Your task to perform on an android device: check android version Image 0: 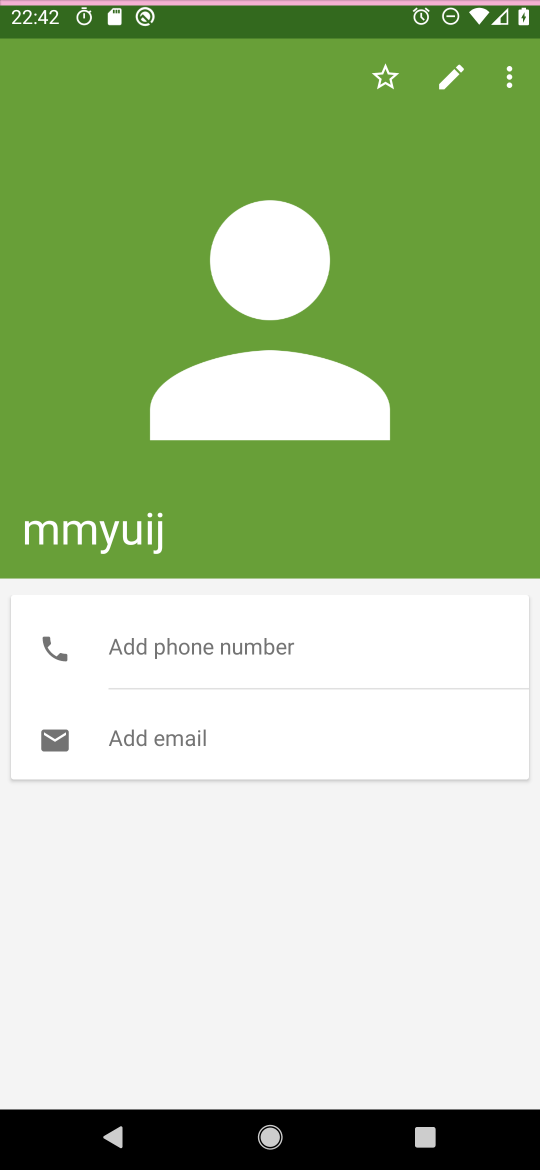
Step 0: drag from (249, 681) to (305, 52)
Your task to perform on an android device: check android version Image 1: 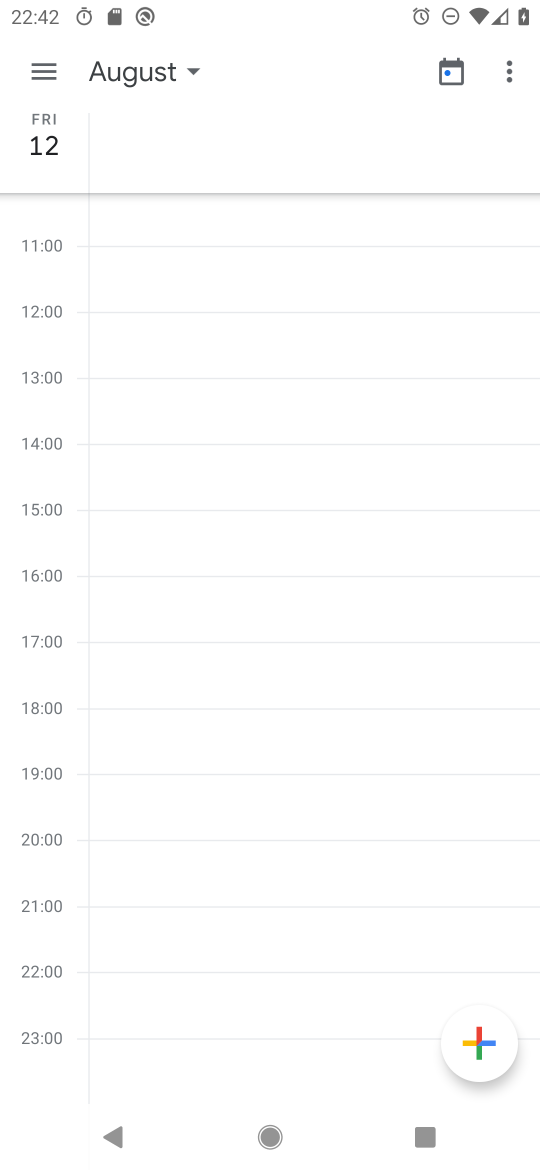
Step 1: press home button
Your task to perform on an android device: check android version Image 2: 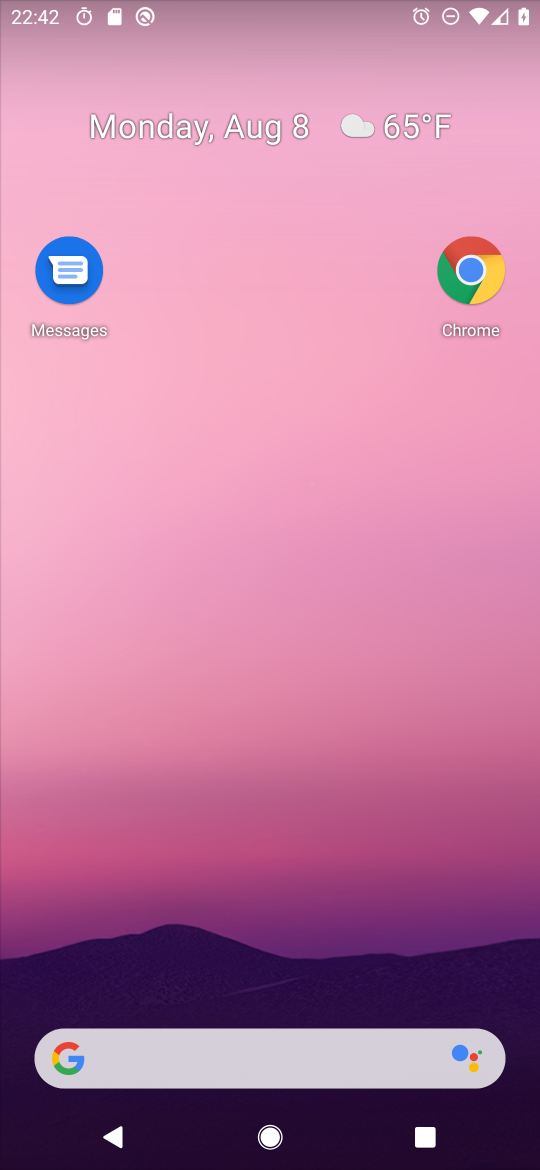
Step 2: drag from (355, 895) to (360, 238)
Your task to perform on an android device: check android version Image 3: 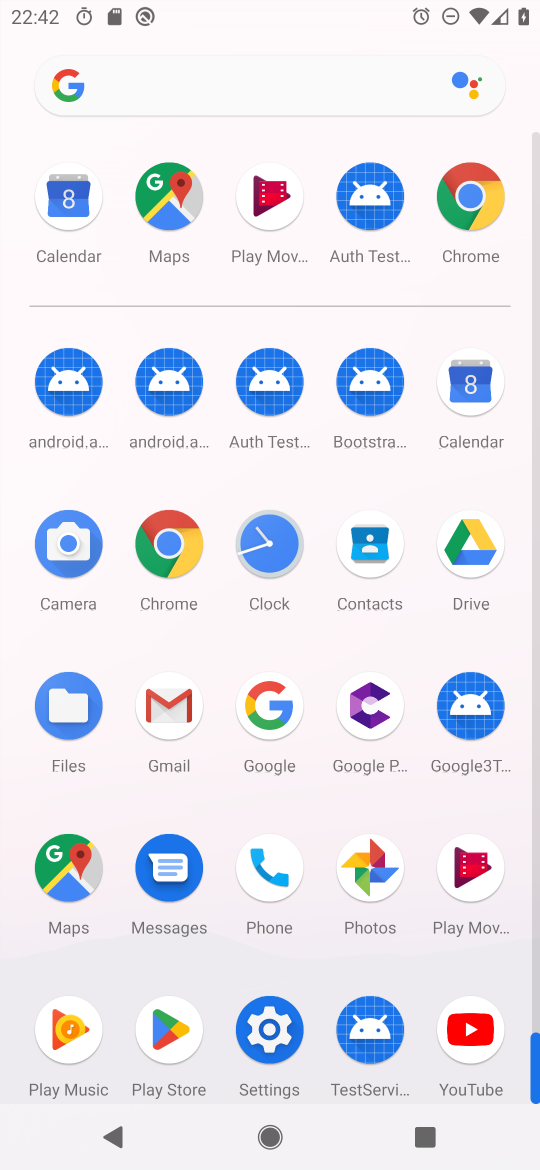
Step 3: click (259, 1030)
Your task to perform on an android device: check android version Image 4: 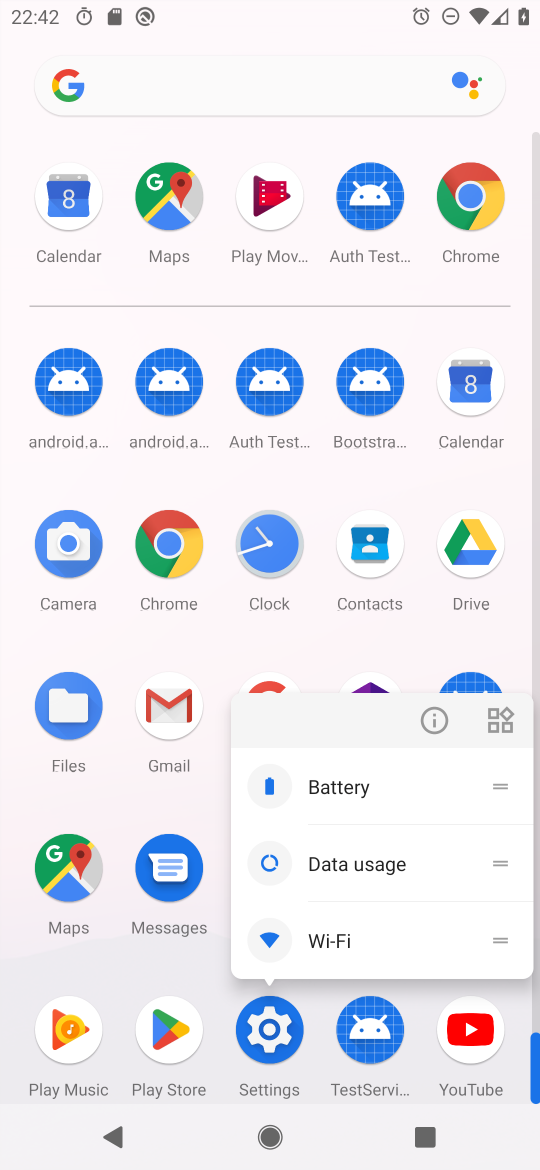
Step 4: click (432, 714)
Your task to perform on an android device: check android version Image 5: 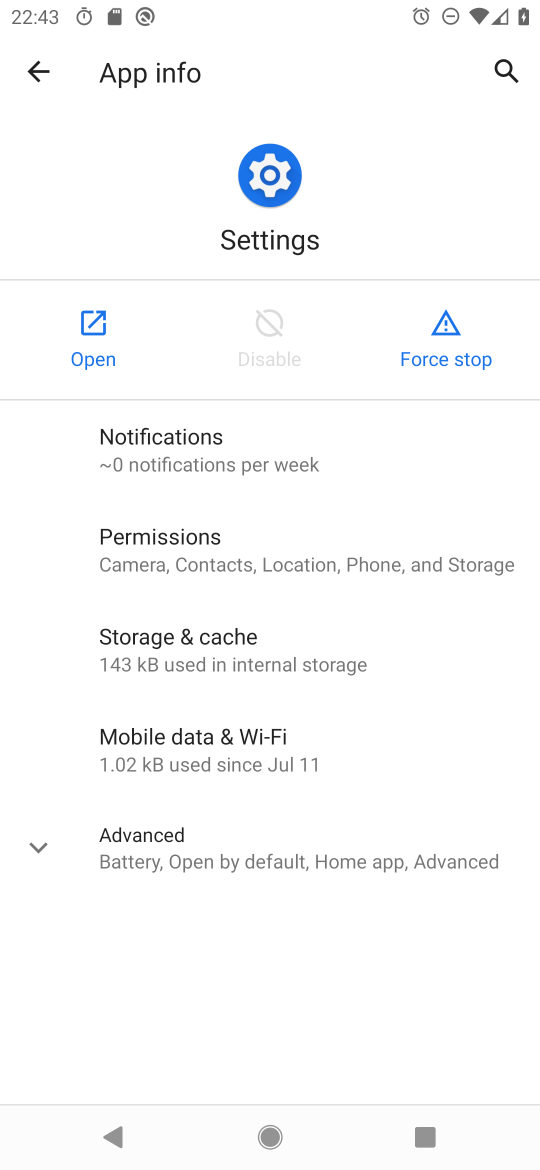
Step 5: click (105, 351)
Your task to perform on an android device: check android version Image 6: 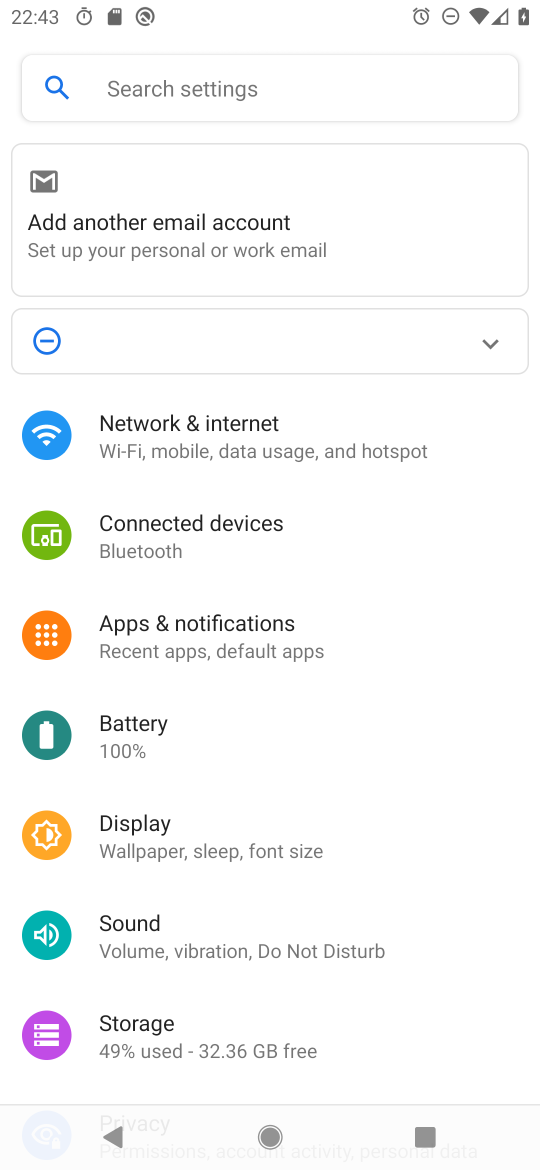
Step 6: drag from (299, 989) to (335, 242)
Your task to perform on an android device: check android version Image 7: 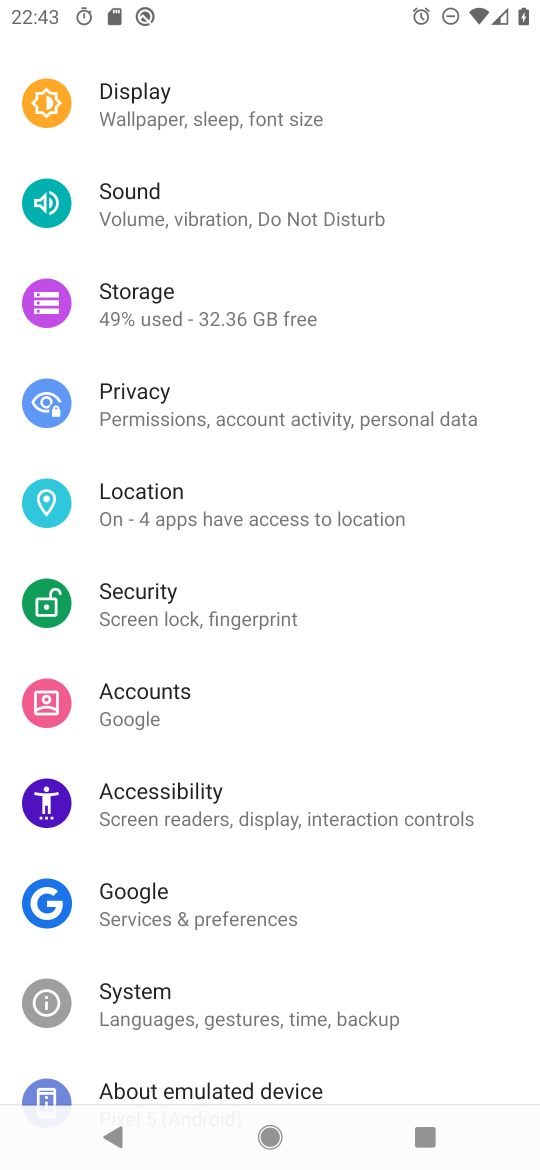
Step 7: drag from (322, 956) to (298, 160)
Your task to perform on an android device: check android version Image 8: 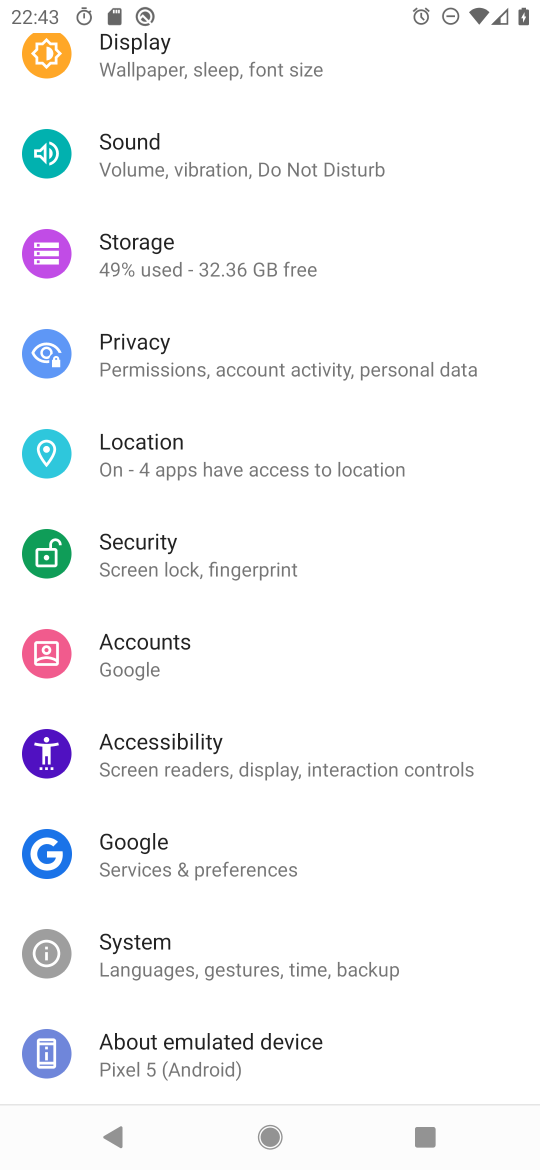
Step 8: drag from (267, 994) to (272, 692)
Your task to perform on an android device: check android version Image 9: 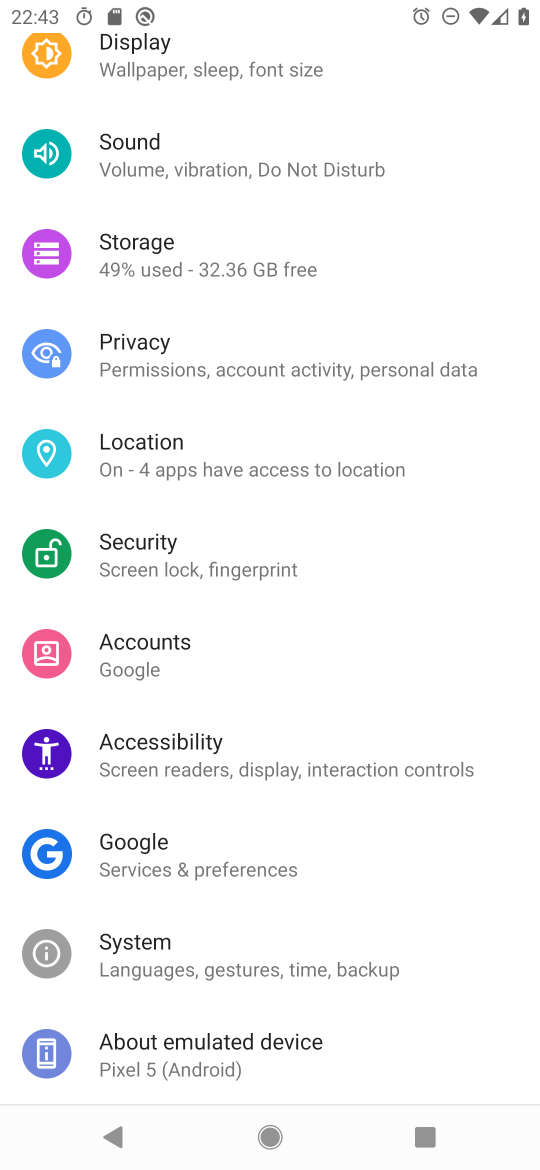
Step 9: click (238, 1054)
Your task to perform on an android device: check android version Image 10: 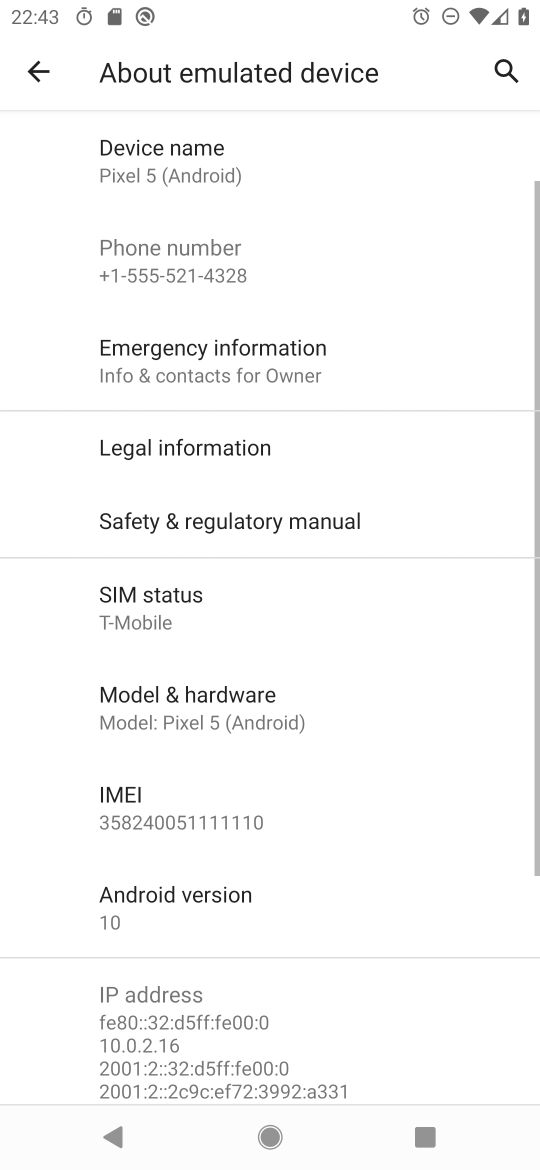
Step 10: click (197, 900)
Your task to perform on an android device: check android version Image 11: 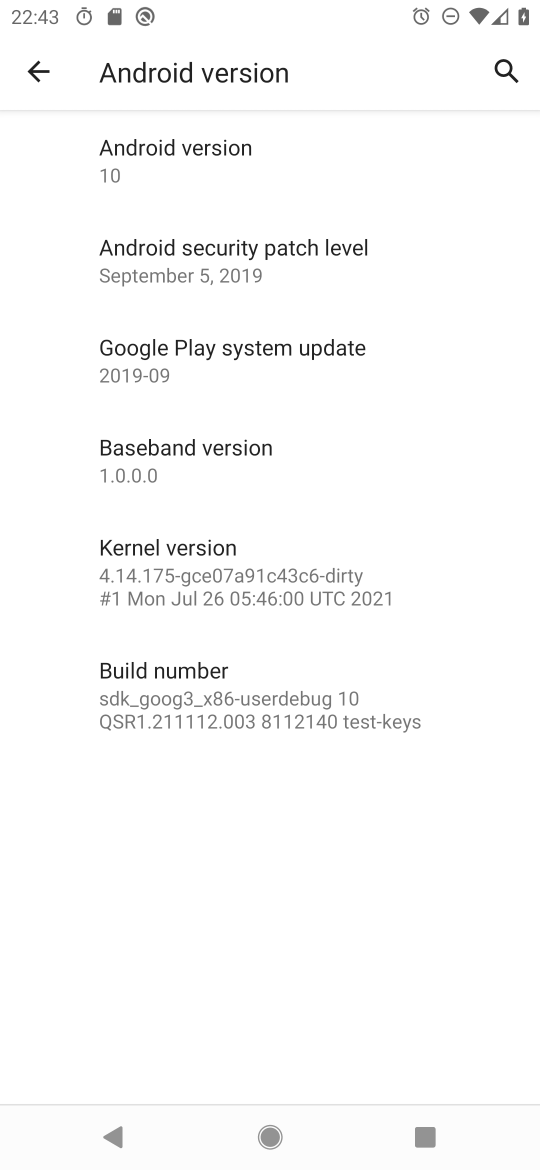
Step 11: task complete